Your task to perform on an android device: set default search engine in the chrome app Image 0: 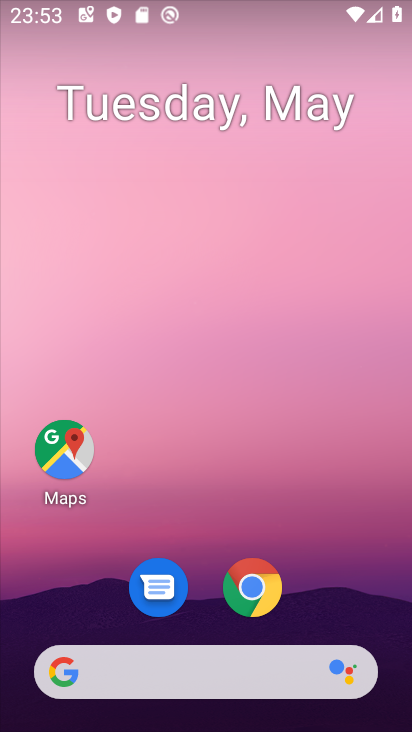
Step 0: click (260, 587)
Your task to perform on an android device: set default search engine in the chrome app Image 1: 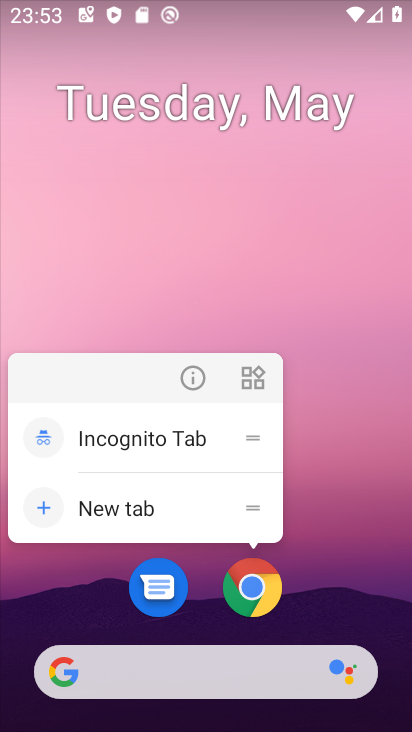
Step 1: click (254, 590)
Your task to perform on an android device: set default search engine in the chrome app Image 2: 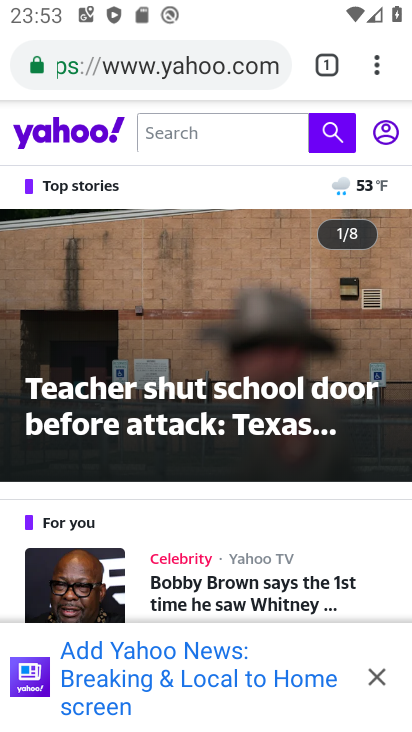
Step 2: click (383, 68)
Your task to perform on an android device: set default search engine in the chrome app Image 3: 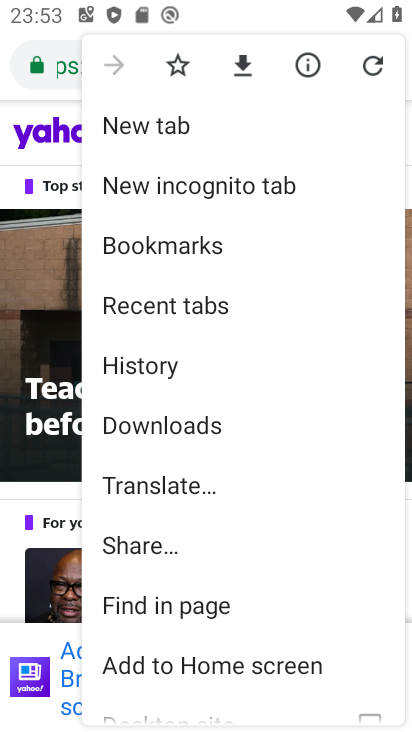
Step 3: drag from (186, 641) to (197, 296)
Your task to perform on an android device: set default search engine in the chrome app Image 4: 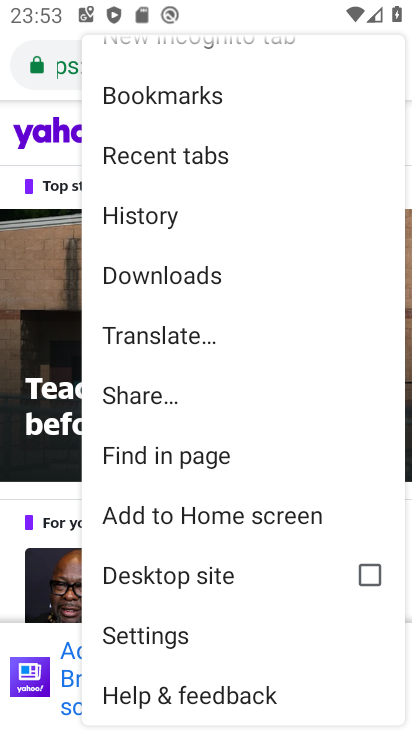
Step 4: click (174, 651)
Your task to perform on an android device: set default search engine in the chrome app Image 5: 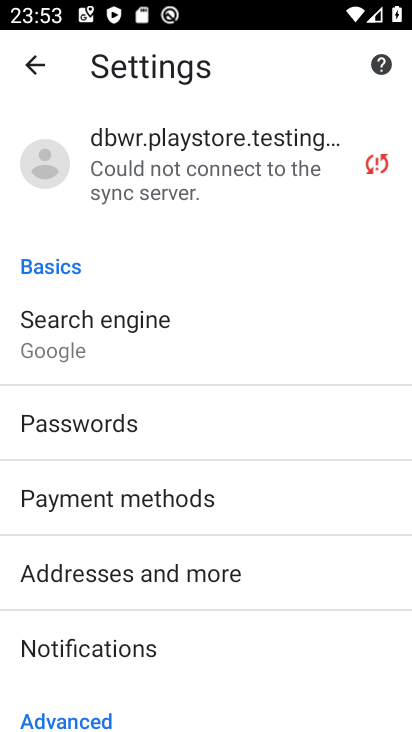
Step 5: click (89, 356)
Your task to perform on an android device: set default search engine in the chrome app Image 6: 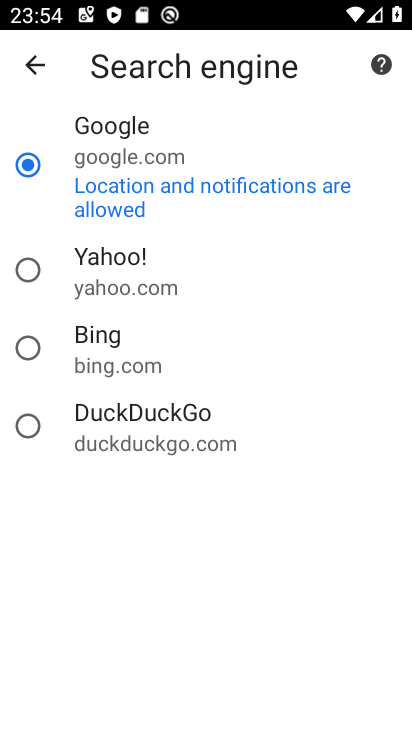
Step 6: click (137, 282)
Your task to perform on an android device: set default search engine in the chrome app Image 7: 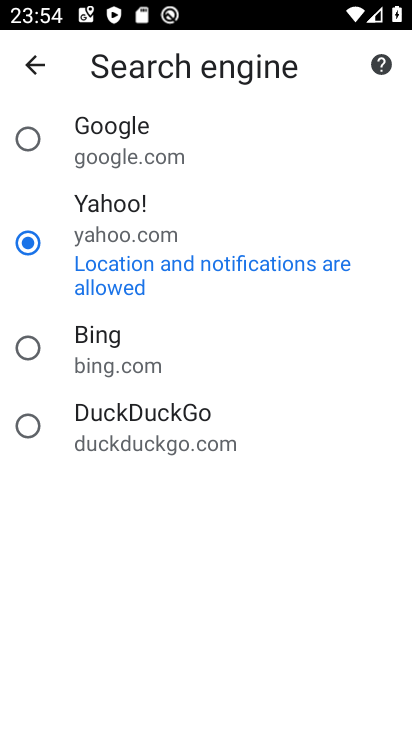
Step 7: task complete